Your task to perform on an android device: What's on my calendar today? Image 0: 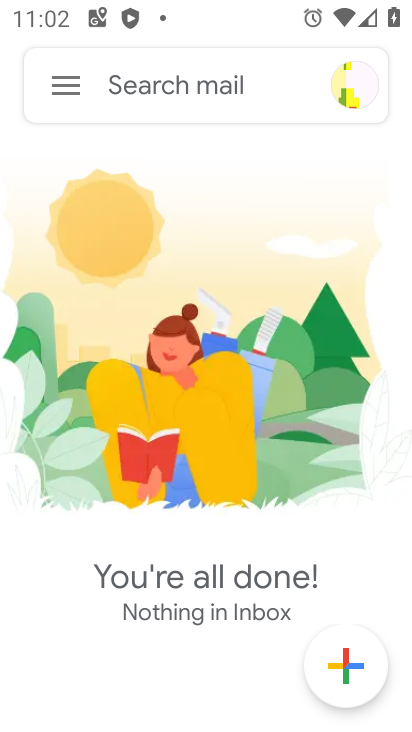
Step 0: press home button
Your task to perform on an android device: What's on my calendar today? Image 1: 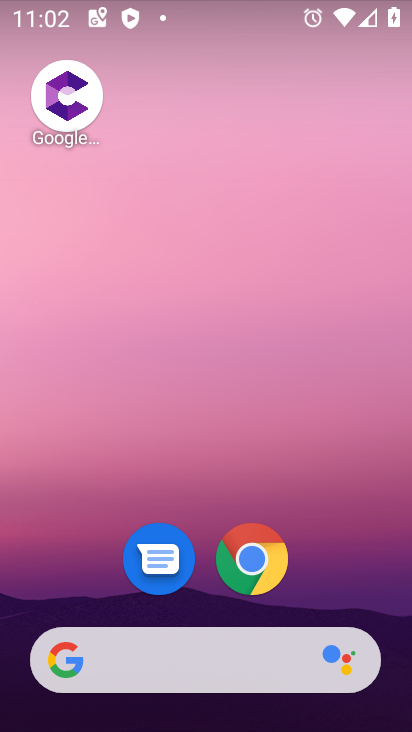
Step 1: drag from (156, 699) to (216, 140)
Your task to perform on an android device: What's on my calendar today? Image 2: 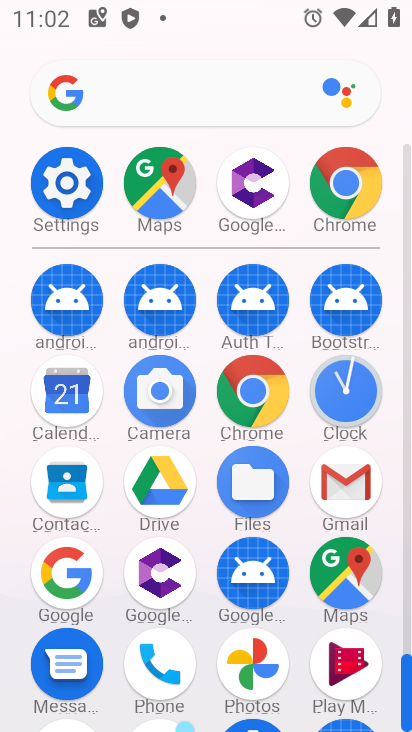
Step 2: click (52, 393)
Your task to perform on an android device: What's on my calendar today? Image 3: 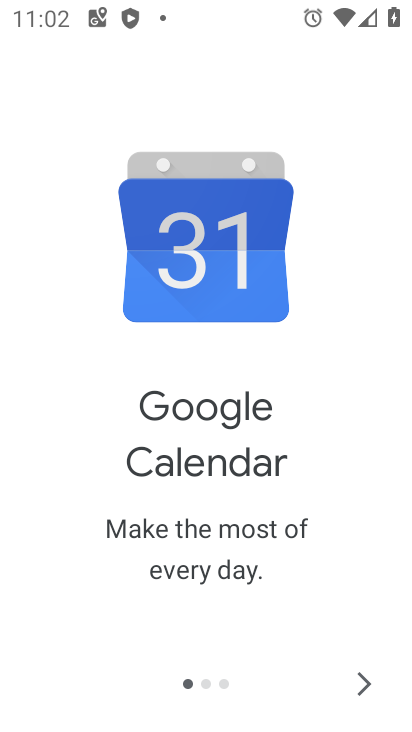
Step 3: click (369, 671)
Your task to perform on an android device: What's on my calendar today? Image 4: 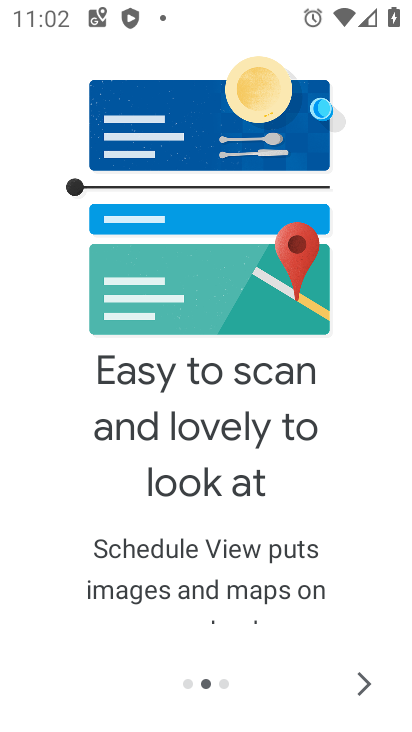
Step 4: click (372, 680)
Your task to perform on an android device: What's on my calendar today? Image 5: 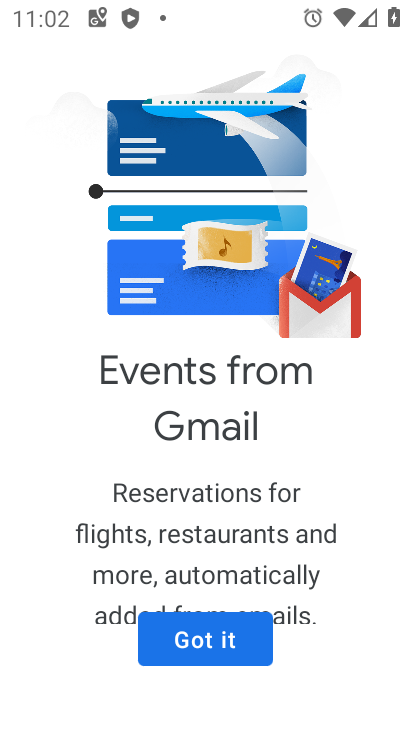
Step 5: click (190, 652)
Your task to perform on an android device: What's on my calendar today? Image 6: 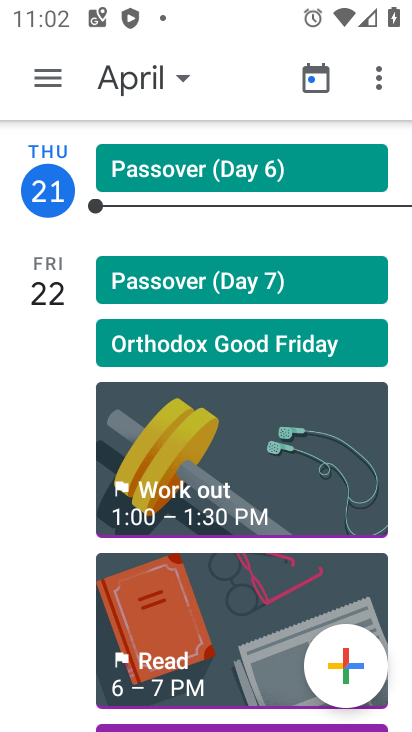
Step 6: click (53, 86)
Your task to perform on an android device: What's on my calendar today? Image 7: 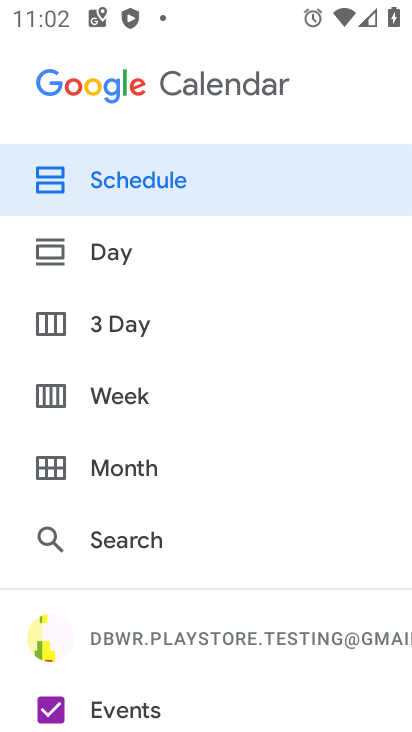
Step 7: click (139, 180)
Your task to perform on an android device: What's on my calendar today? Image 8: 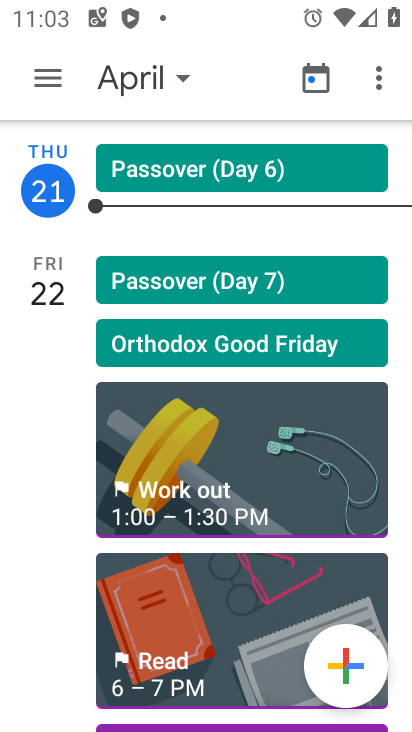
Step 8: task complete